Your task to perform on an android device: Go to privacy settings Image 0: 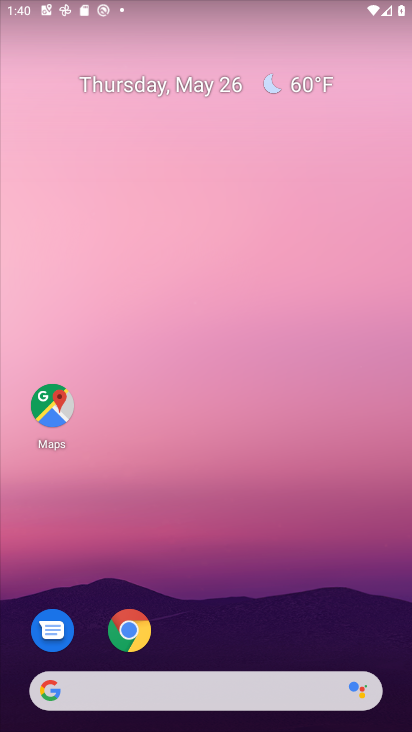
Step 0: drag from (286, 617) to (267, 79)
Your task to perform on an android device: Go to privacy settings Image 1: 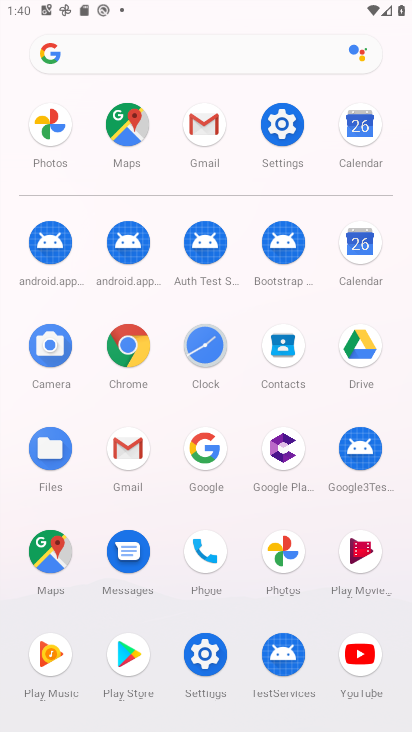
Step 1: click (273, 108)
Your task to perform on an android device: Go to privacy settings Image 2: 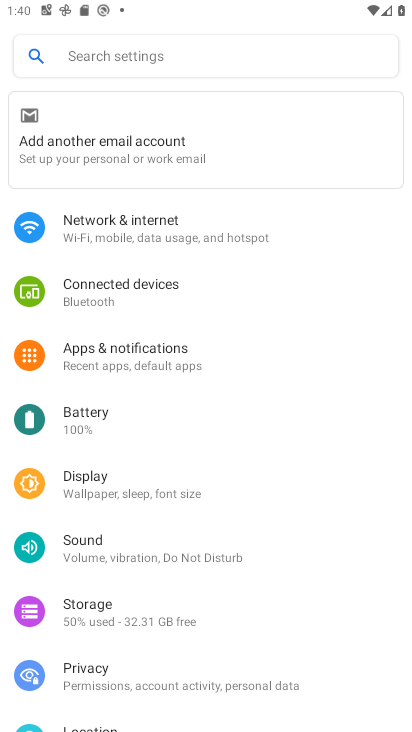
Step 2: drag from (145, 642) to (189, 310)
Your task to perform on an android device: Go to privacy settings Image 3: 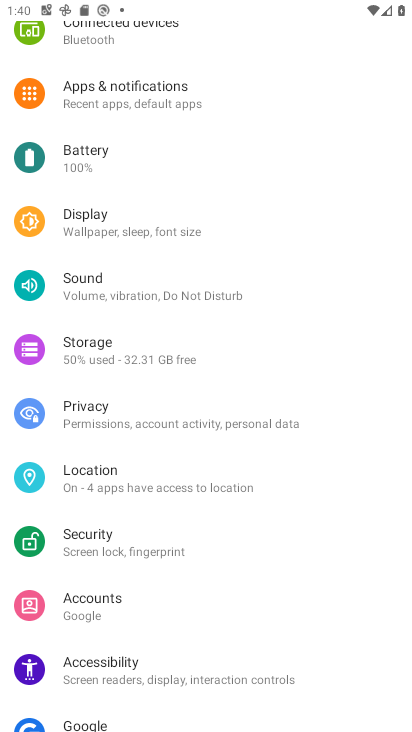
Step 3: click (101, 415)
Your task to perform on an android device: Go to privacy settings Image 4: 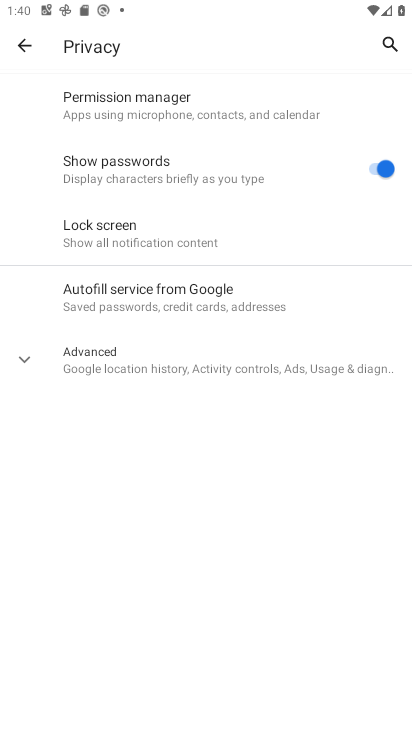
Step 4: task complete